Your task to perform on an android device: Open Yahoo.com Image 0: 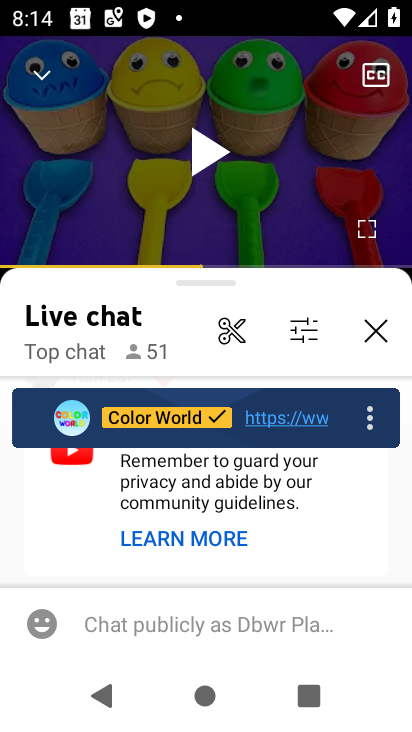
Step 0: press home button
Your task to perform on an android device: Open Yahoo.com Image 1: 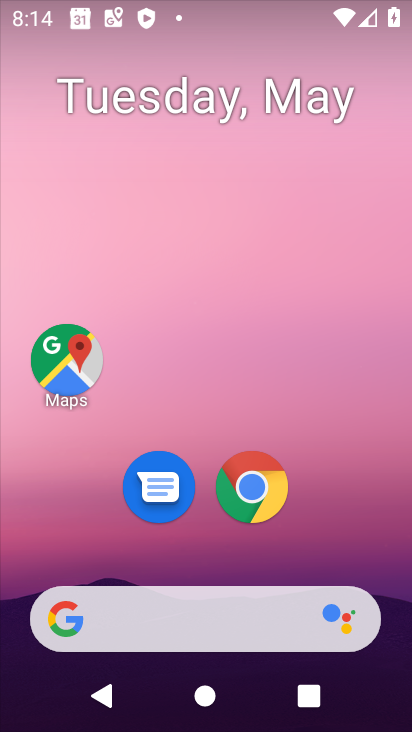
Step 1: drag from (370, 534) to (366, 168)
Your task to perform on an android device: Open Yahoo.com Image 2: 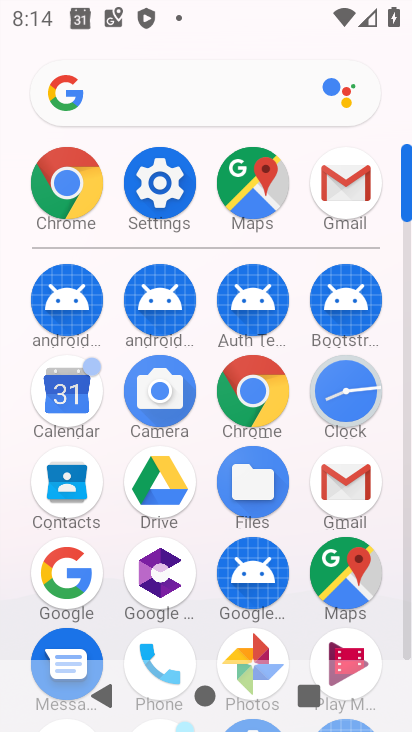
Step 2: click (276, 402)
Your task to perform on an android device: Open Yahoo.com Image 3: 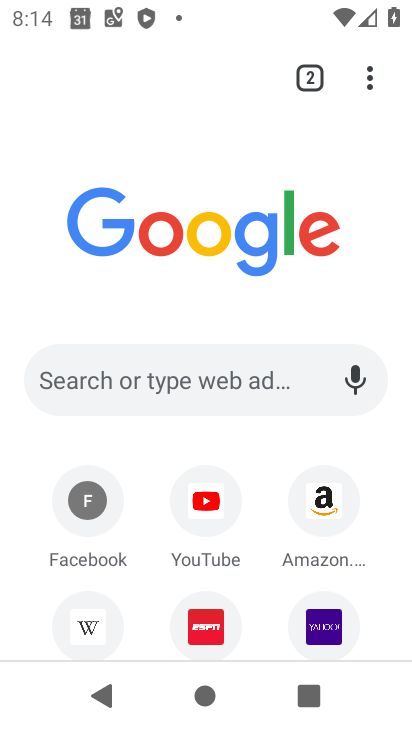
Step 3: click (326, 618)
Your task to perform on an android device: Open Yahoo.com Image 4: 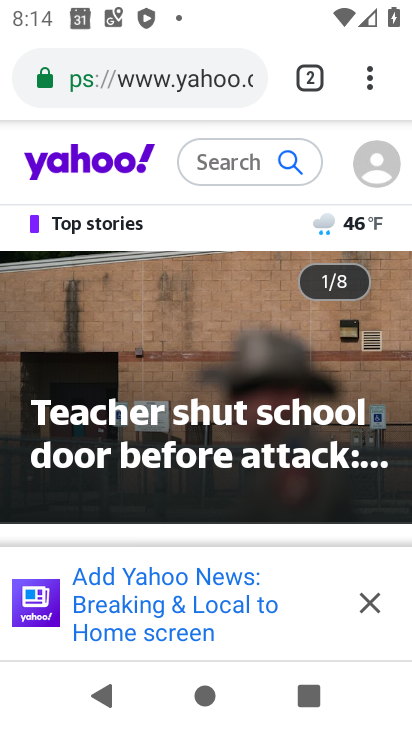
Step 4: task complete